Your task to perform on an android device: read, delete, or share a saved page in the chrome app Image 0: 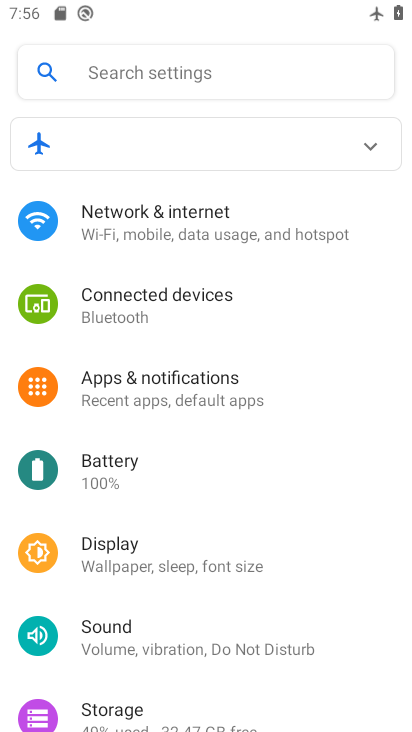
Step 0: press home button
Your task to perform on an android device: read, delete, or share a saved page in the chrome app Image 1: 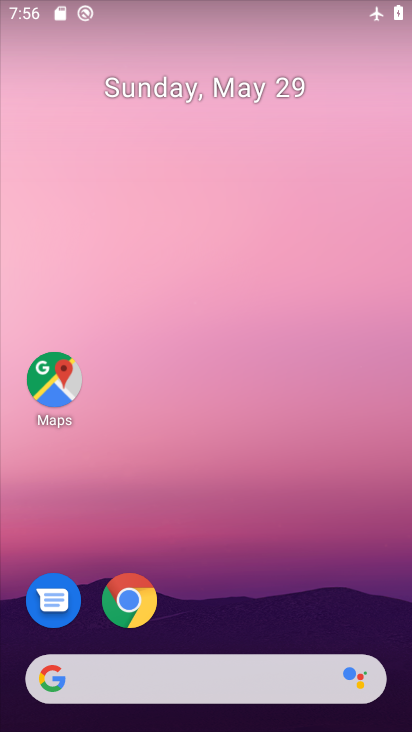
Step 1: click (142, 608)
Your task to perform on an android device: read, delete, or share a saved page in the chrome app Image 2: 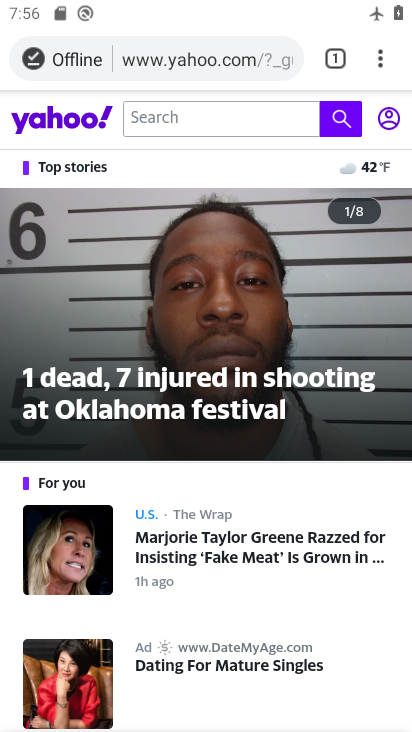
Step 2: click (387, 69)
Your task to perform on an android device: read, delete, or share a saved page in the chrome app Image 3: 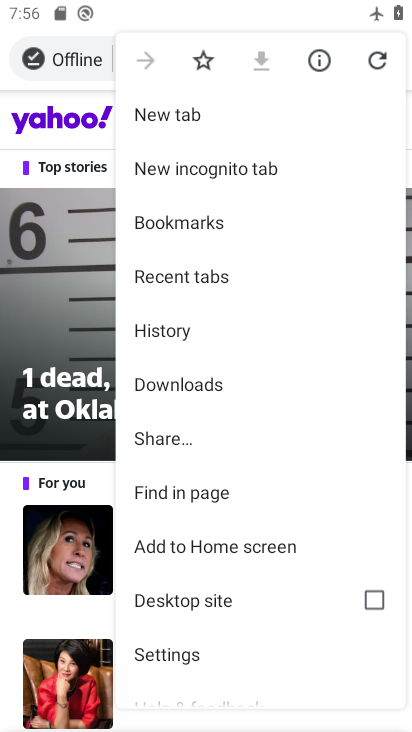
Step 3: click (178, 392)
Your task to perform on an android device: read, delete, or share a saved page in the chrome app Image 4: 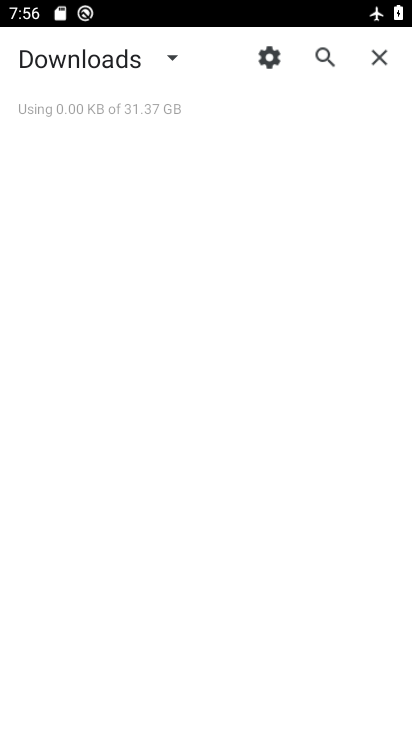
Step 4: task complete